Your task to perform on an android device: Turn on the flashlight Image 0: 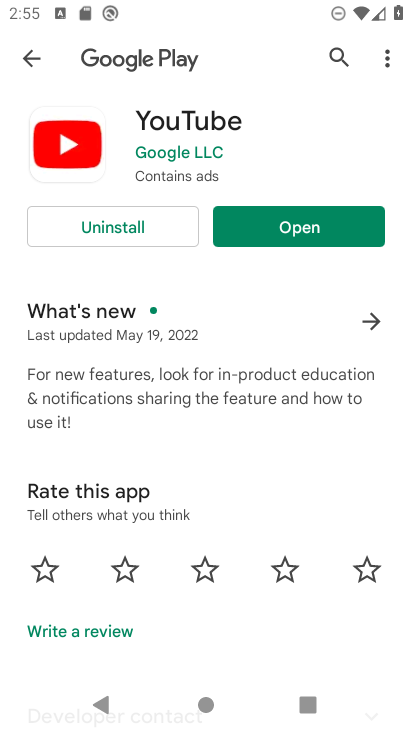
Step 0: press home button
Your task to perform on an android device: Turn on the flashlight Image 1: 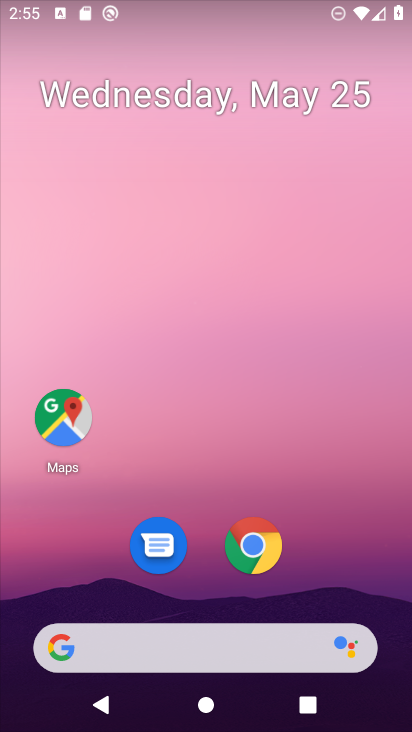
Step 1: drag from (367, 582) to (281, 126)
Your task to perform on an android device: Turn on the flashlight Image 2: 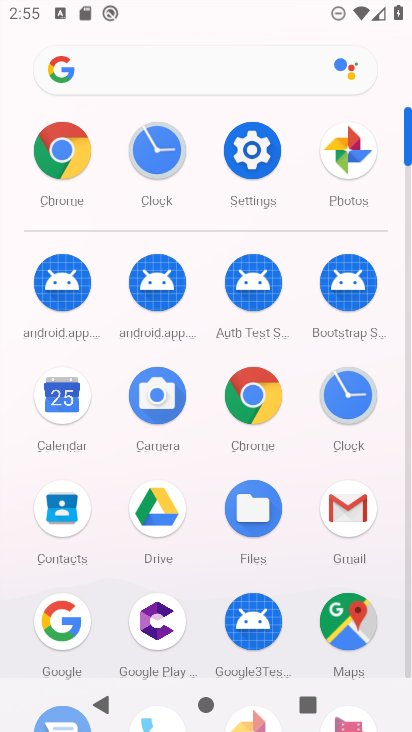
Step 2: click (235, 167)
Your task to perform on an android device: Turn on the flashlight Image 3: 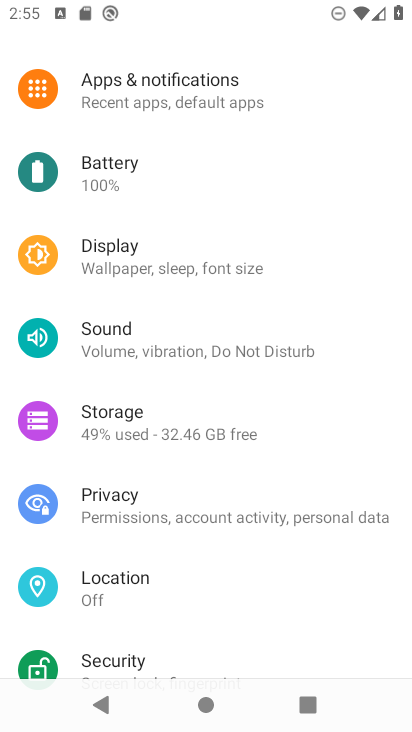
Step 3: click (190, 220)
Your task to perform on an android device: Turn on the flashlight Image 4: 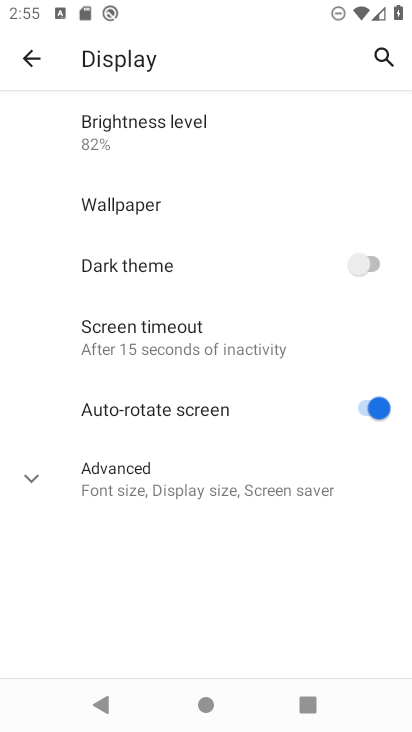
Step 4: task complete